Your task to perform on an android device: move a message to another label in the gmail app Image 0: 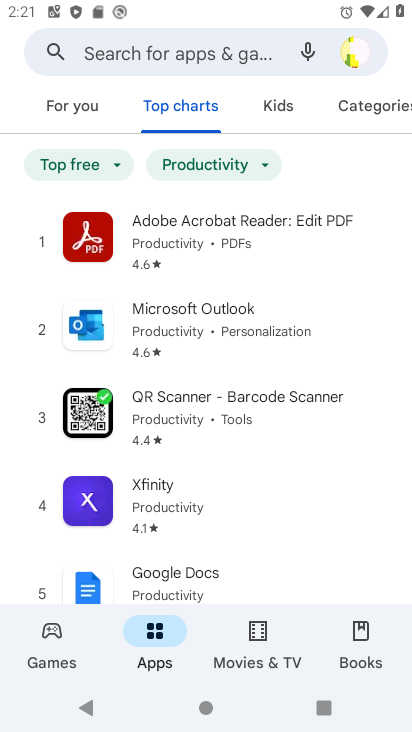
Step 0: press home button
Your task to perform on an android device: move a message to another label in the gmail app Image 1: 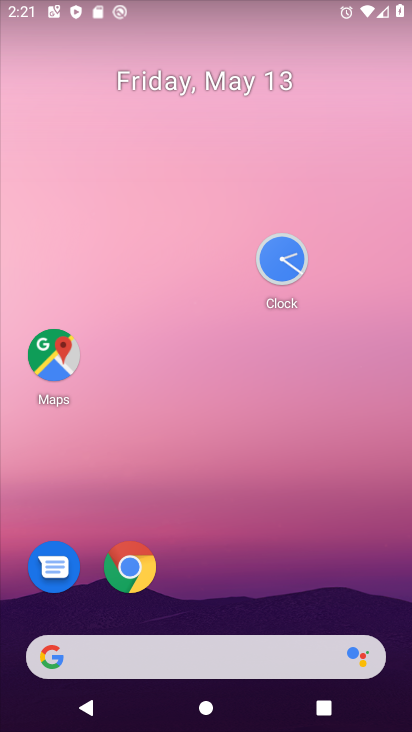
Step 1: drag from (321, 554) to (376, 91)
Your task to perform on an android device: move a message to another label in the gmail app Image 2: 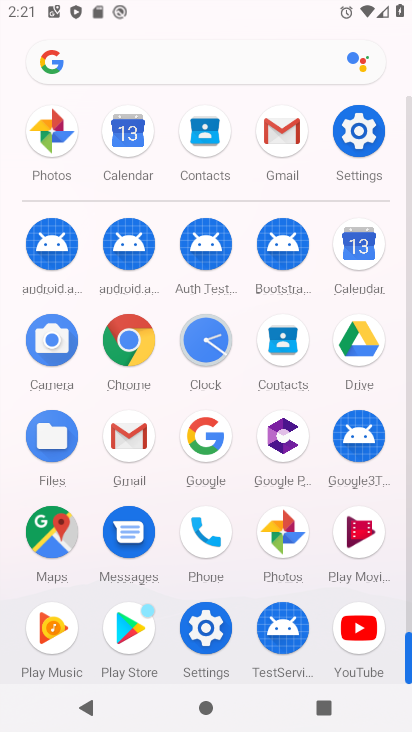
Step 2: click (137, 446)
Your task to perform on an android device: move a message to another label in the gmail app Image 3: 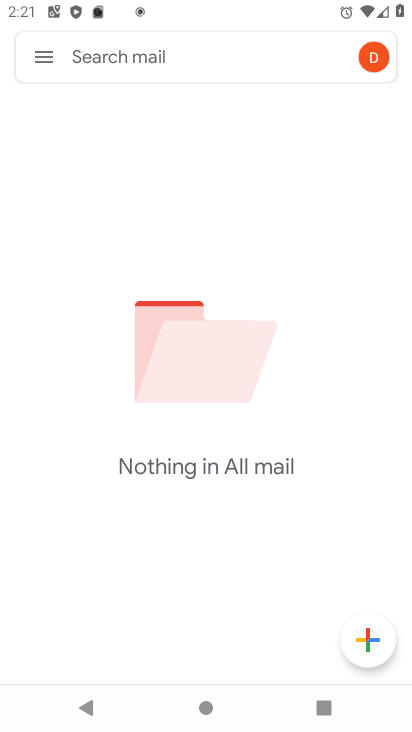
Step 3: click (39, 72)
Your task to perform on an android device: move a message to another label in the gmail app Image 4: 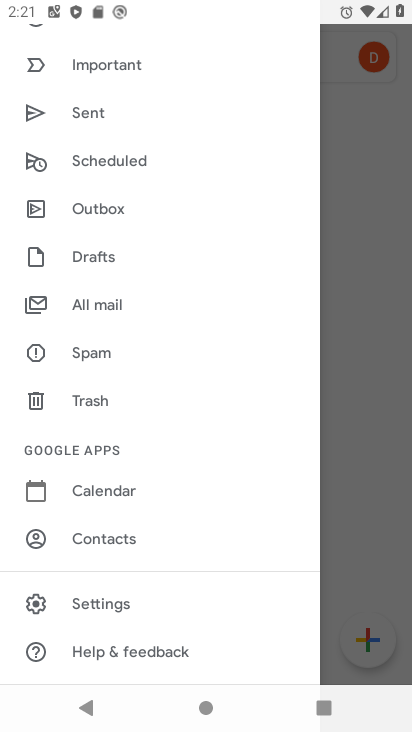
Step 4: click (135, 293)
Your task to perform on an android device: move a message to another label in the gmail app Image 5: 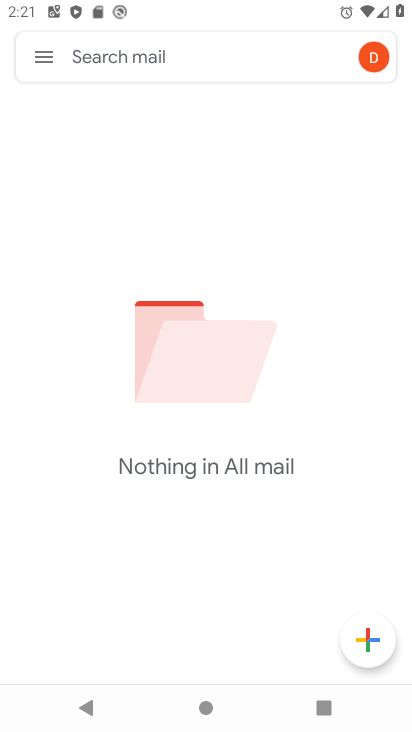
Step 5: task complete